Your task to perform on an android device: toggle location history Image 0: 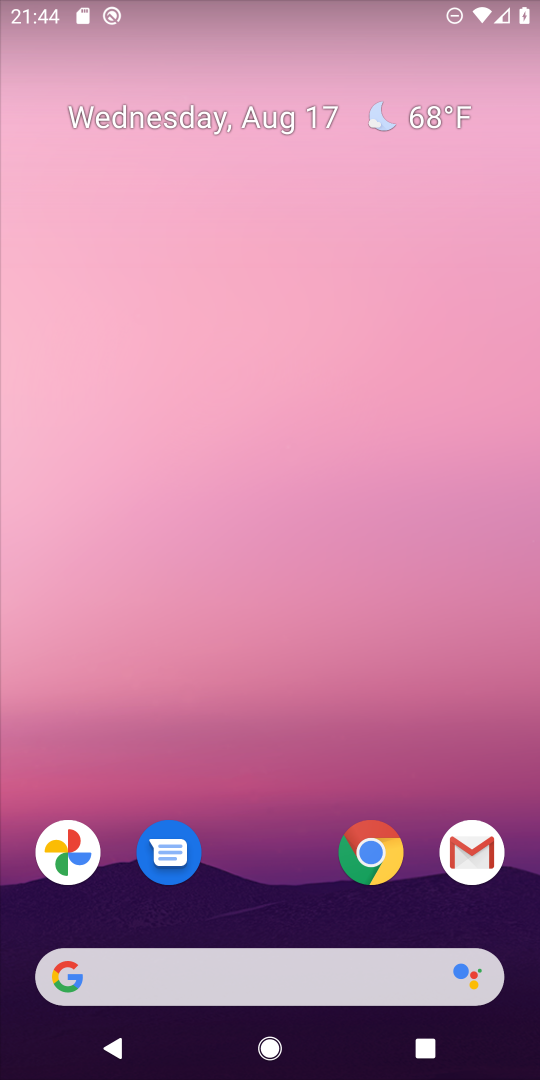
Step 0: drag from (273, 914) to (253, 274)
Your task to perform on an android device: toggle location history Image 1: 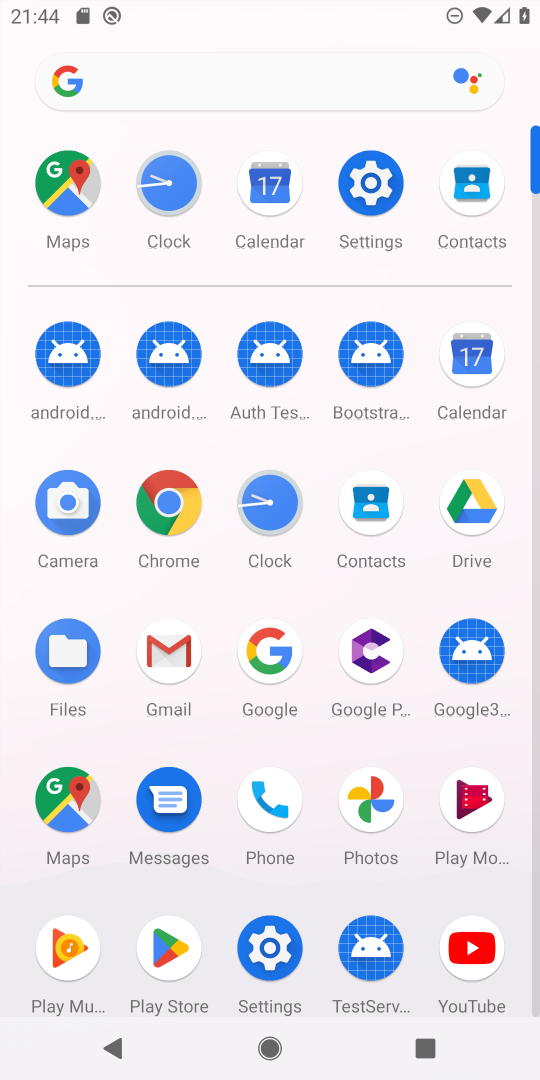
Step 1: click (63, 171)
Your task to perform on an android device: toggle location history Image 2: 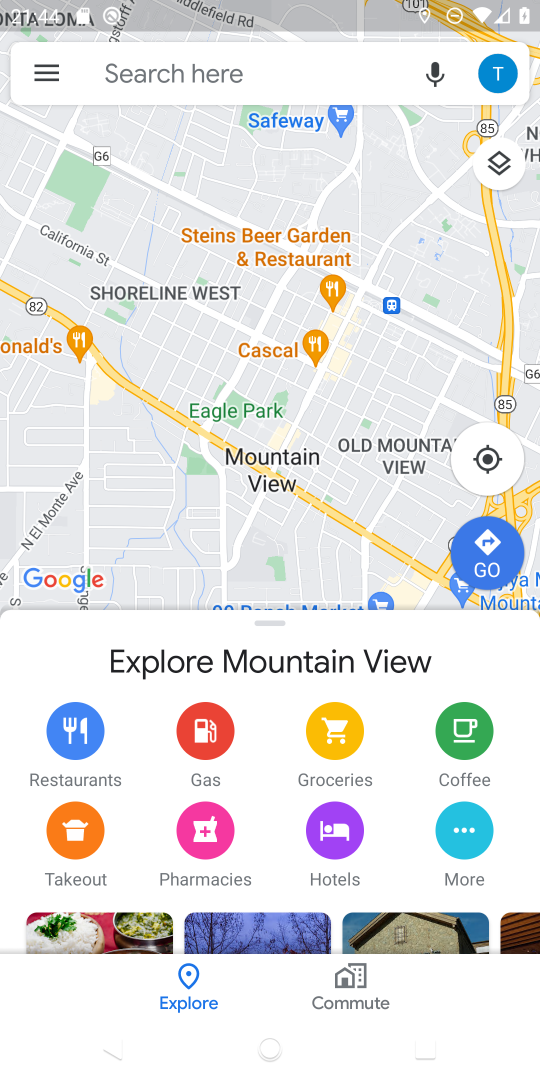
Step 2: click (48, 64)
Your task to perform on an android device: toggle location history Image 3: 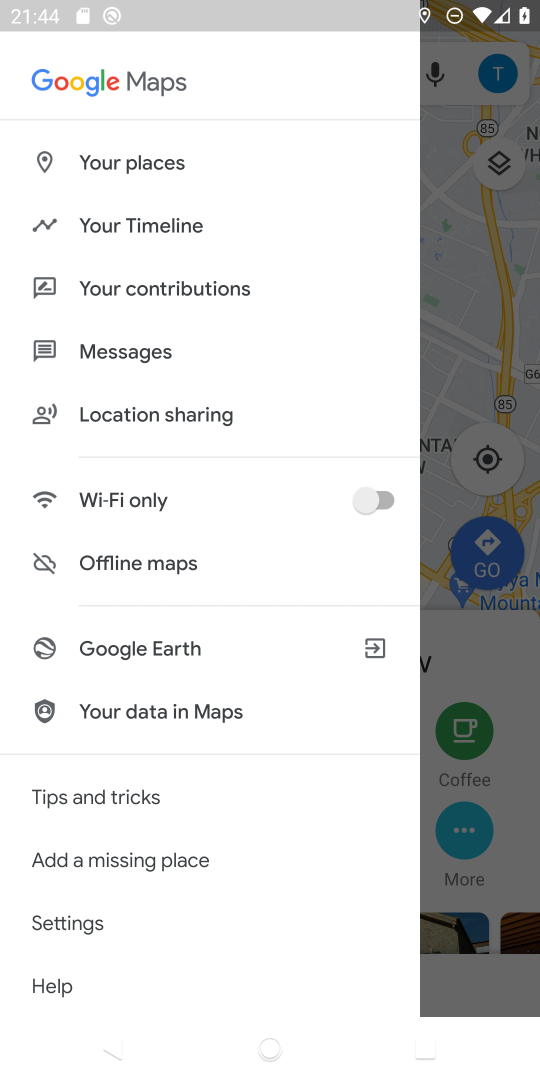
Step 3: click (138, 217)
Your task to perform on an android device: toggle location history Image 4: 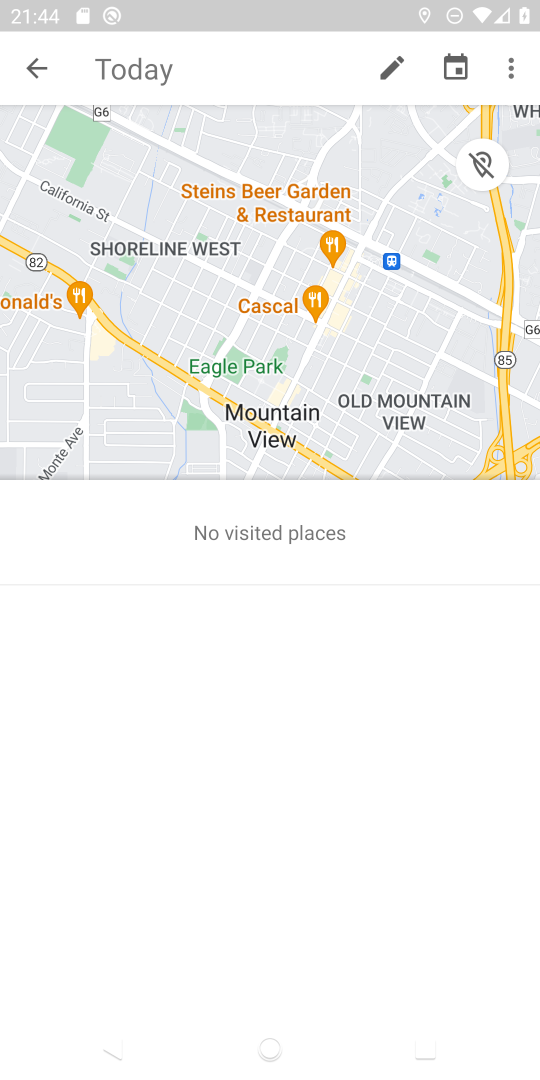
Step 4: click (512, 63)
Your task to perform on an android device: toggle location history Image 5: 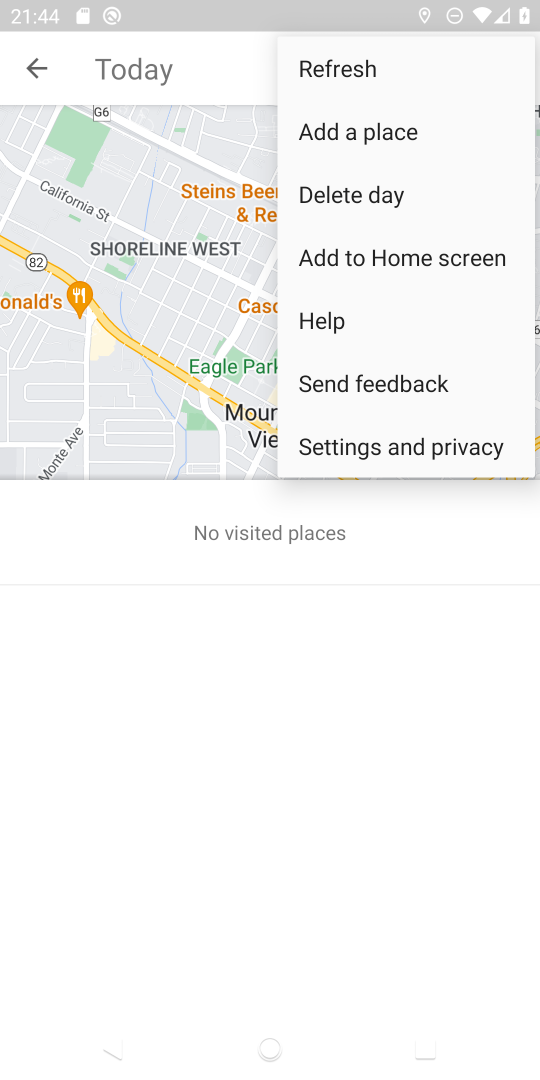
Step 5: click (421, 437)
Your task to perform on an android device: toggle location history Image 6: 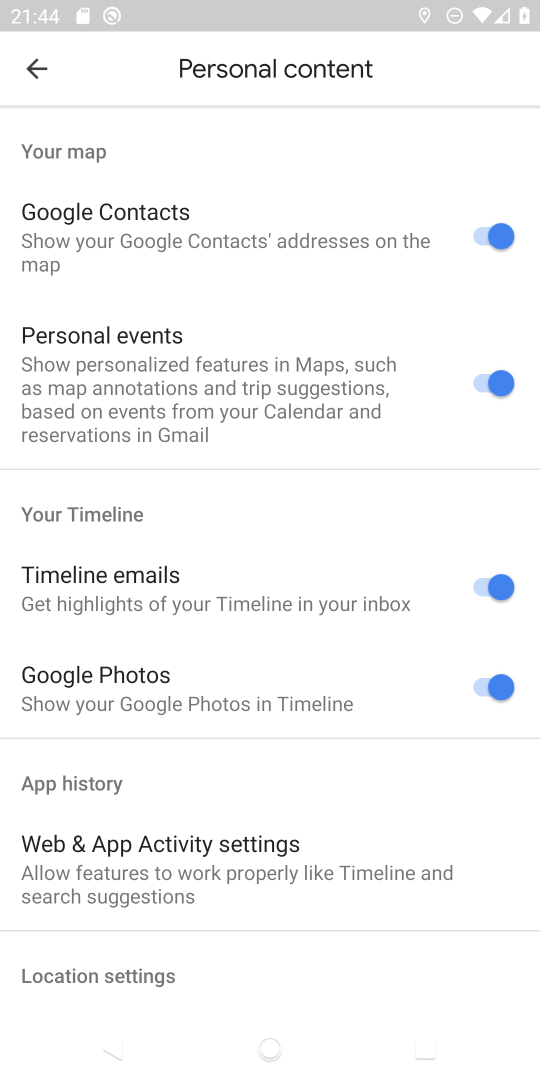
Step 6: drag from (317, 967) to (235, 533)
Your task to perform on an android device: toggle location history Image 7: 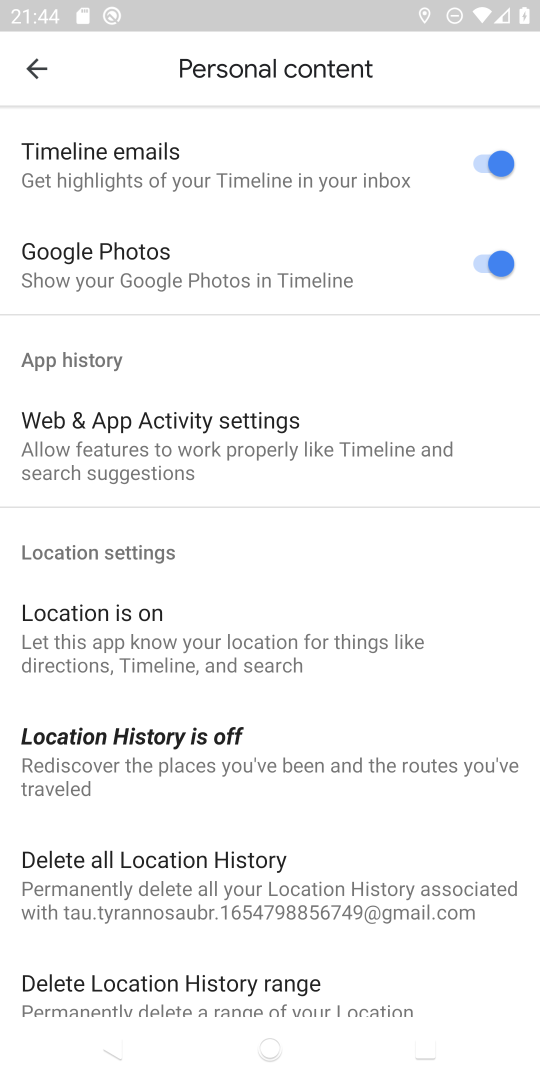
Step 7: click (105, 730)
Your task to perform on an android device: toggle location history Image 8: 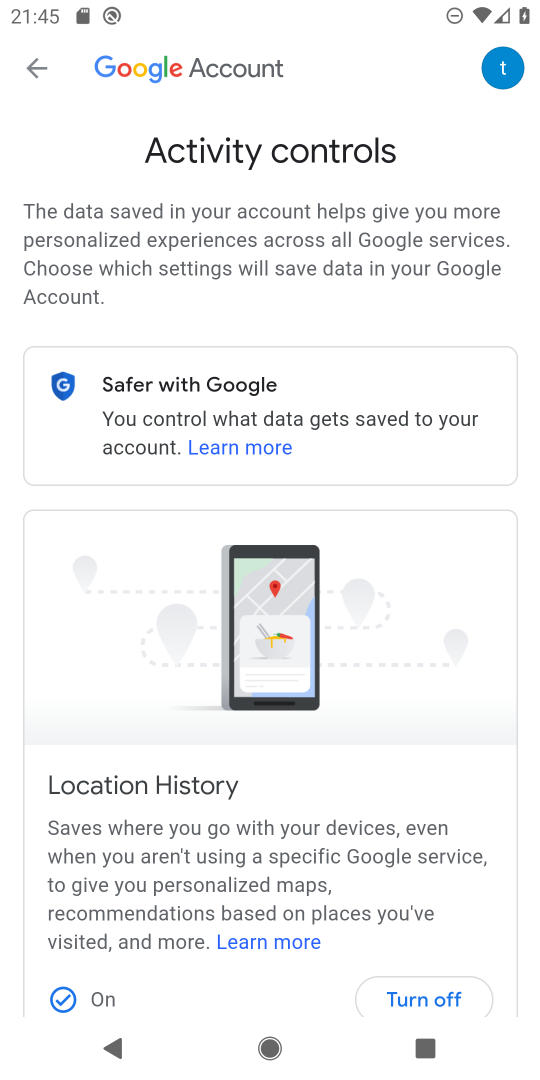
Step 8: click (427, 1002)
Your task to perform on an android device: toggle location history Image 9: 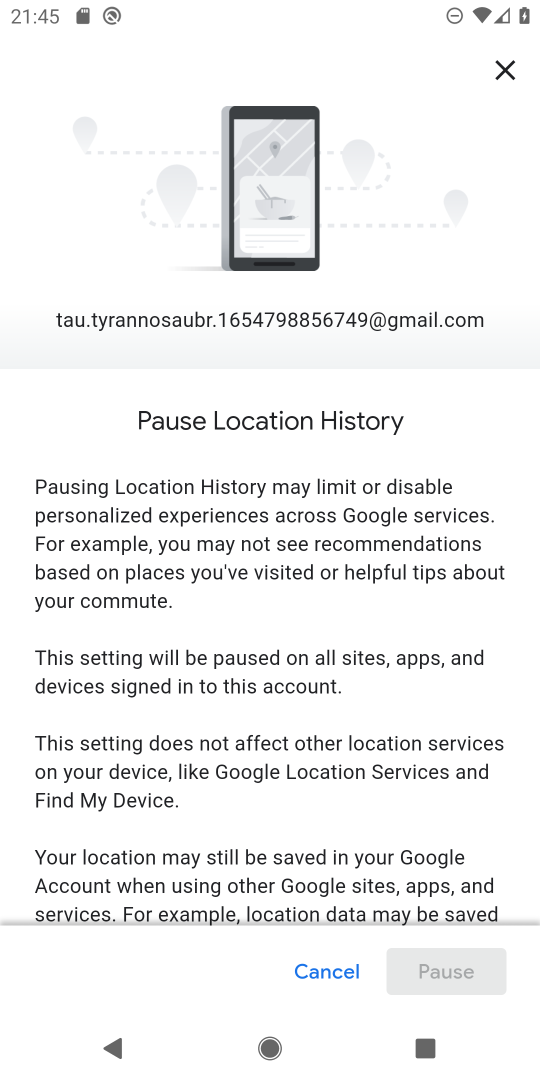
Step 9: drag from (343, 855) to (270, 335)
Your task to perform on an android device: toggle location history Image 10: 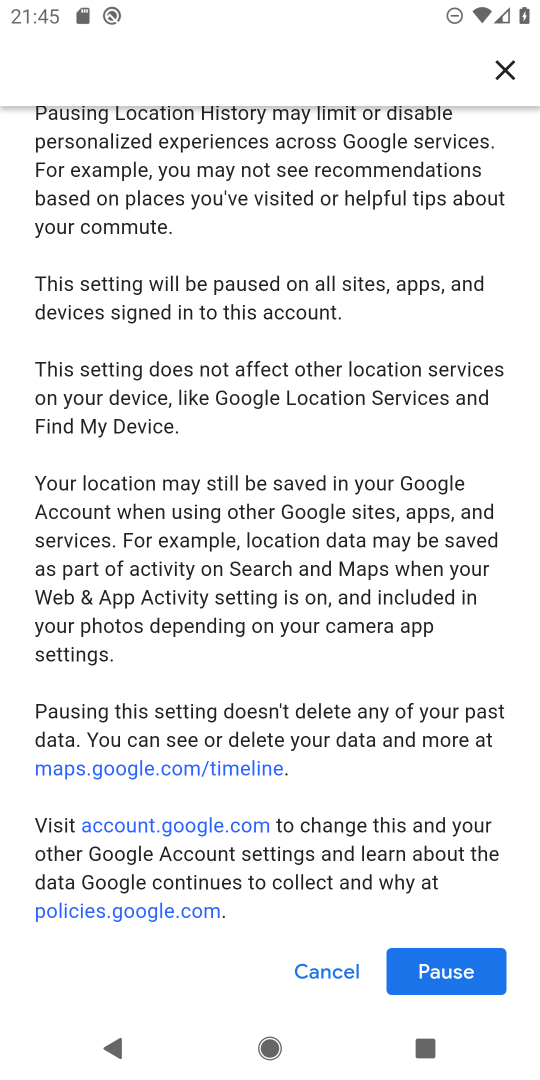
Step 10: drag from (303, 783) to (272, 465)
Your task to perform on an android device: toggle location history Image 11: 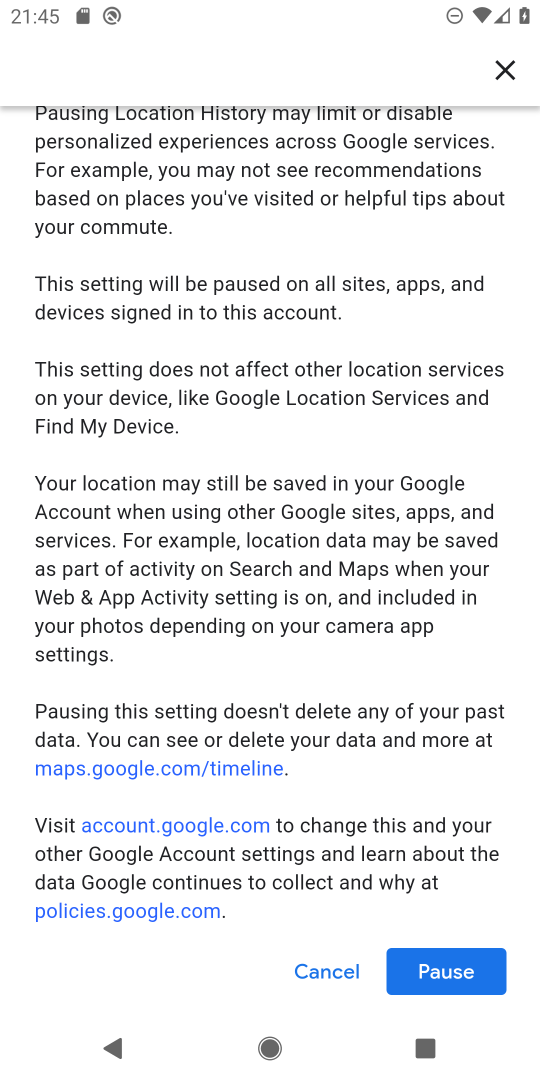
Step 11: click (448, 962)
Your task to perform on an android device: toggle location history Image 12: 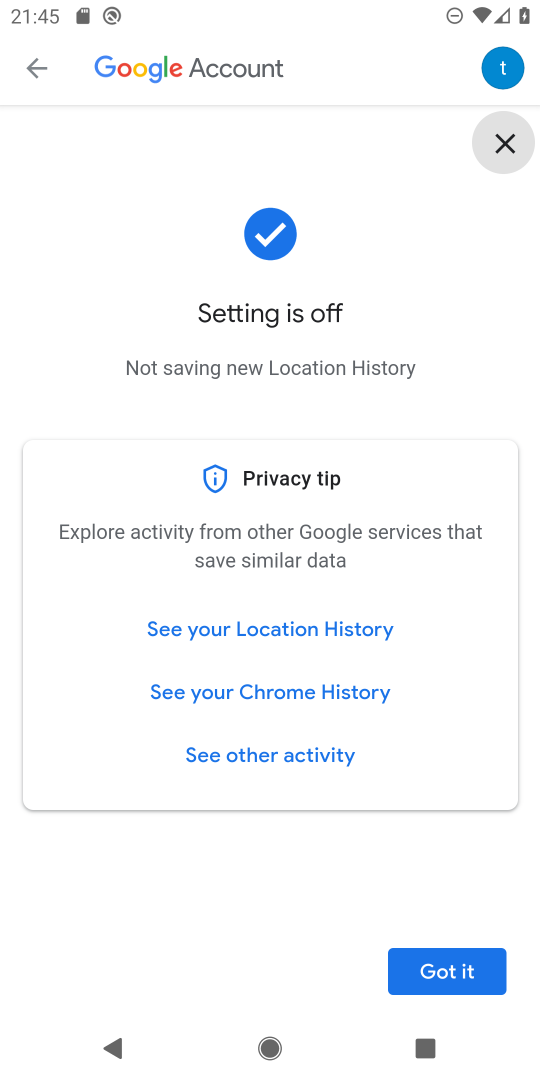
Step 12: click (449, 972)
Your task to perform on an android device: toggle location history Image 13: 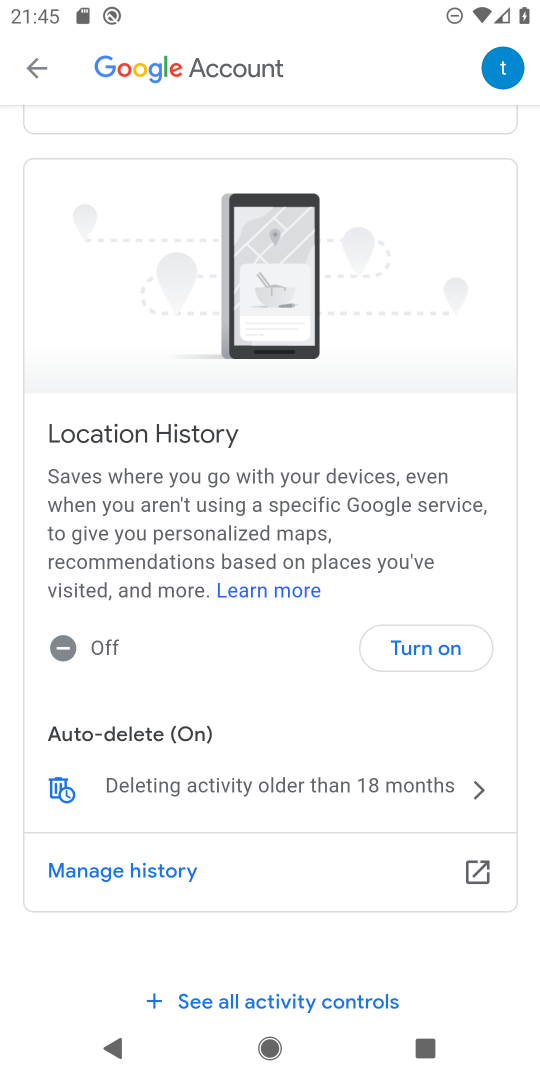
Step 13: task complete